Your task to perform on an android device: stop showing notifications on the lock screen Image 0: 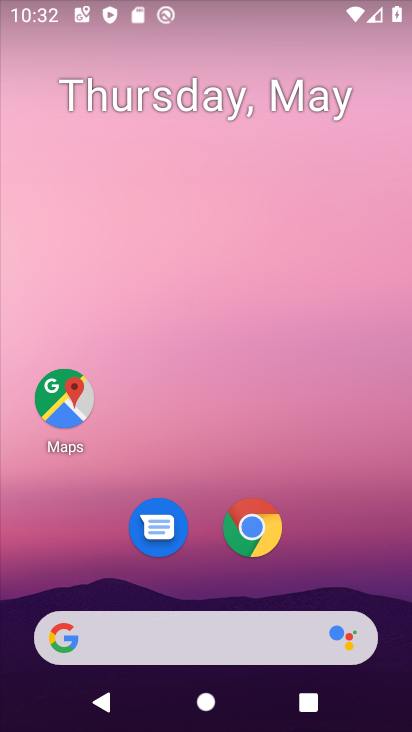
Step 0: drag from (325, 355) to (345, 0)
Your task to perform on an android device: stop showing notifications on the lock screen Image 1: 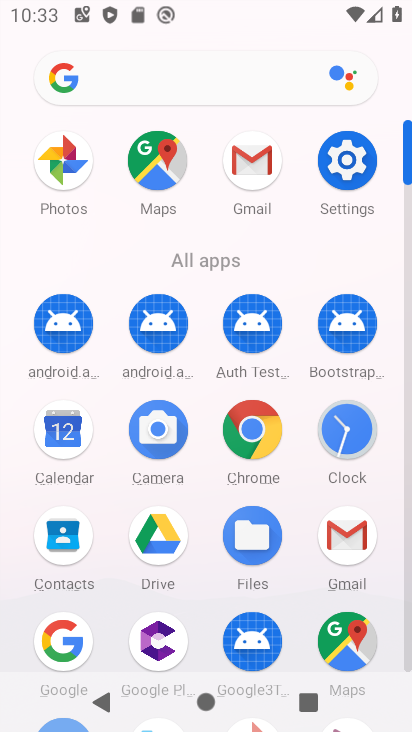
Step 1: click (343, 168)
Your task to perform on an android device: stop showing notifications on the lock screen Image 2: 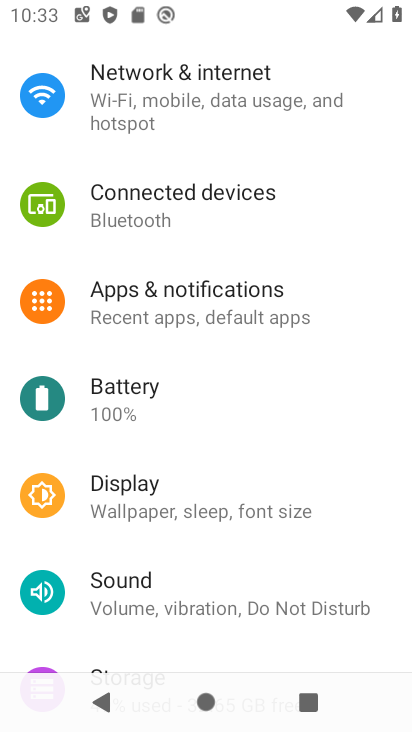
Step 2: click (188, 293)
Your task to perform on an android device: stop showing notifications on the lock screen Image 3: 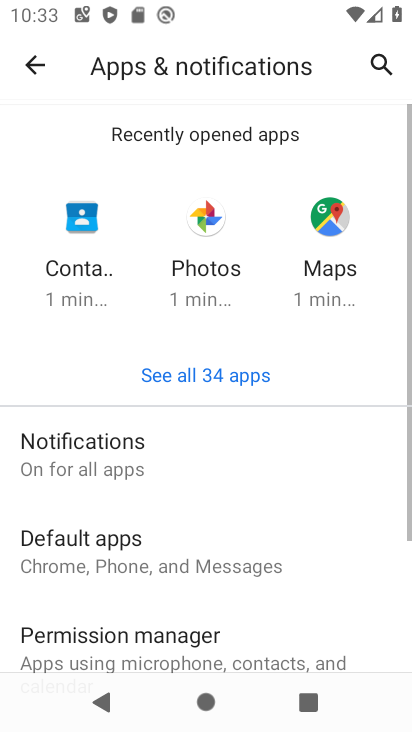
Step 3: drag from (186, 535) to (240, 254)
Your task to perform on an android device: stop showing notifications on the lock screen Image 4: 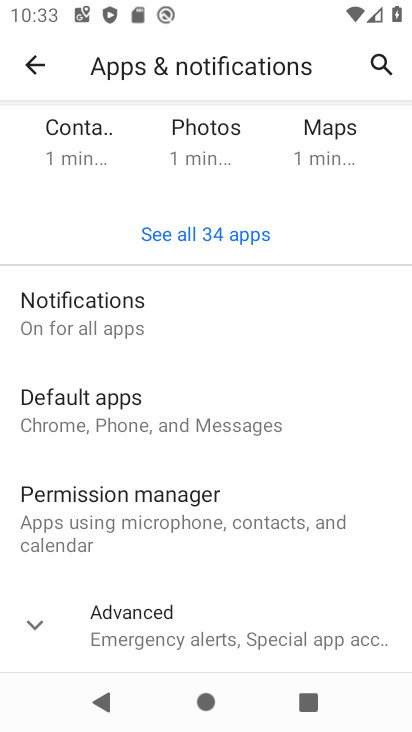
Step 4: click (101, 300)
Your task to perform on an android device: stop showing notifications on the lock screen Image 5: 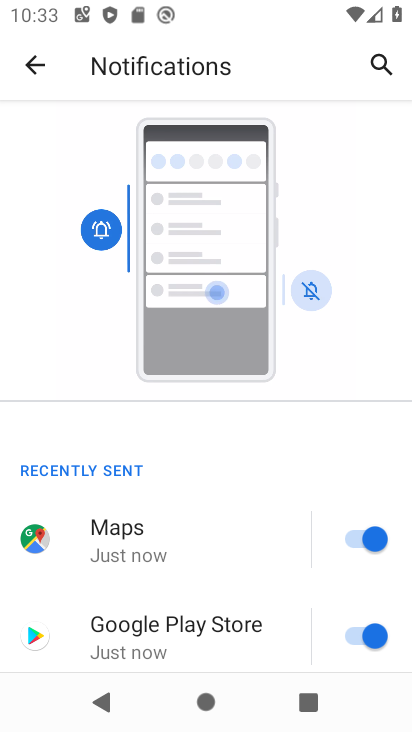
Step 5: drag from (174, 586) to (222, 127)
Your task to perform on an android device: stop showing notifications on the lock screen Image 6: 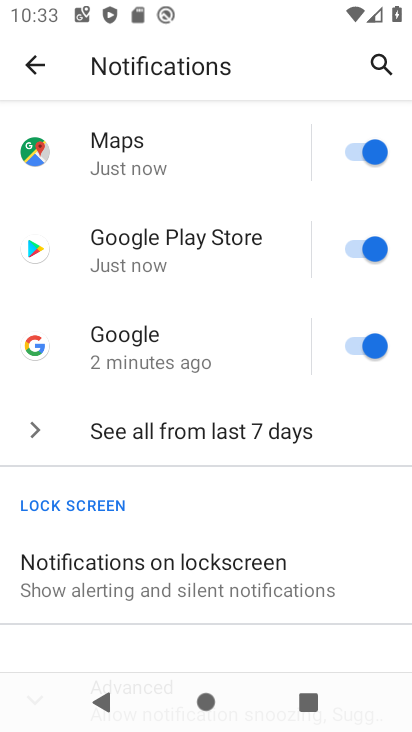
Step 6: click (142, 568)
Your task to perform on an android device: stop showing notifications on the lock screen Image 7: 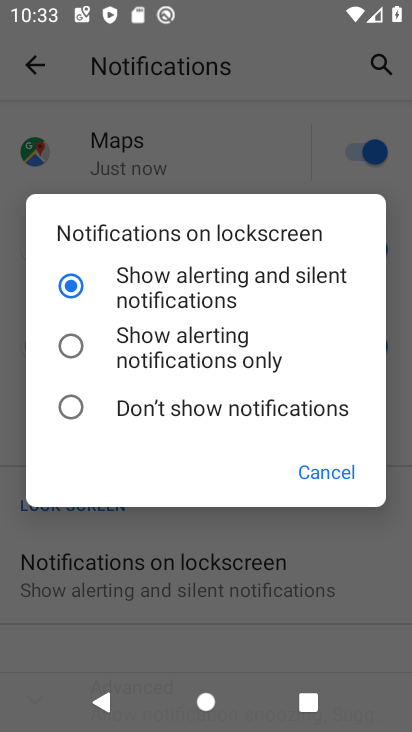
Step 7: click (218, 393)
Your task to perform on an android device: stop showing notifications on the lock screen Image 8: 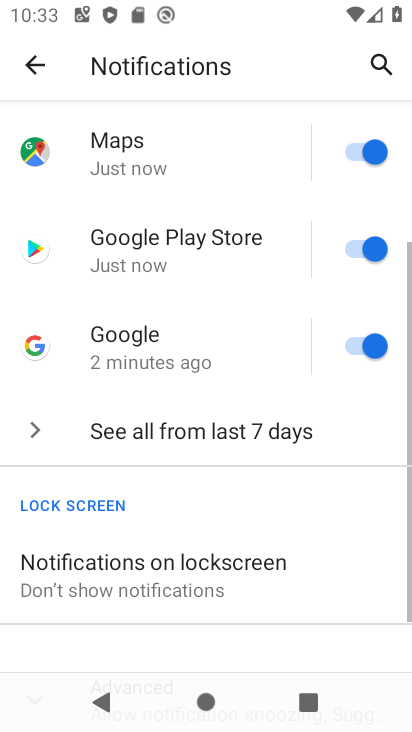
Step 8: task complete